Your task to perform on an android device: Do I have any events this weekend? Image 0: 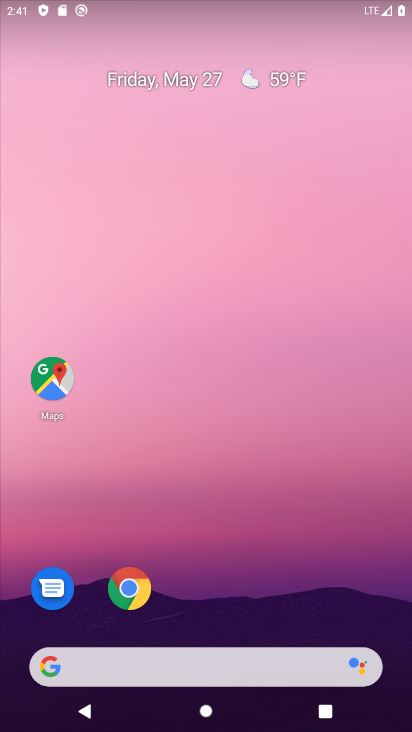
Step 0: drag from (274, 676) to (217, 192)
Your task to perform on an android device: Do I have any events this weekend? Image 1: 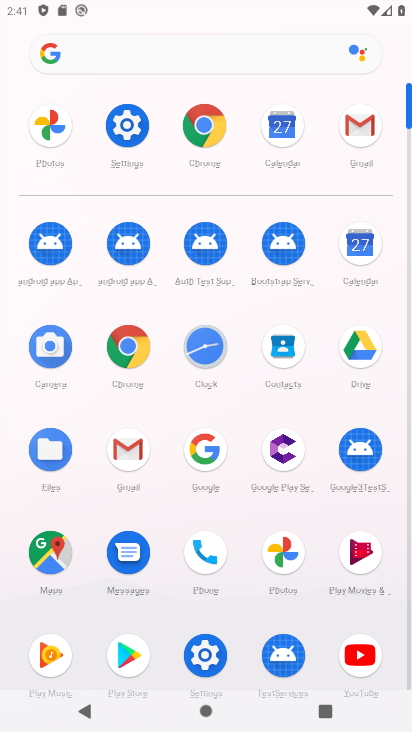
Step 1: click (364, 255)
Your task to perform on an android device: Do I have any events this weekend? Image 2: 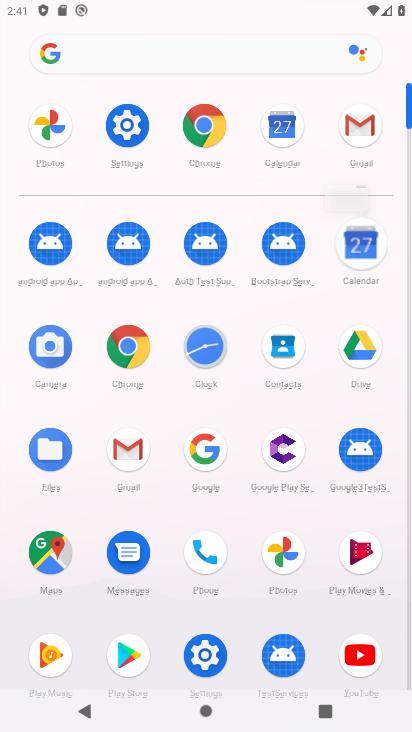
Step 2: click (364, 255)
Your task to perform on an android device: Do I have any events this weekend? Image 3: 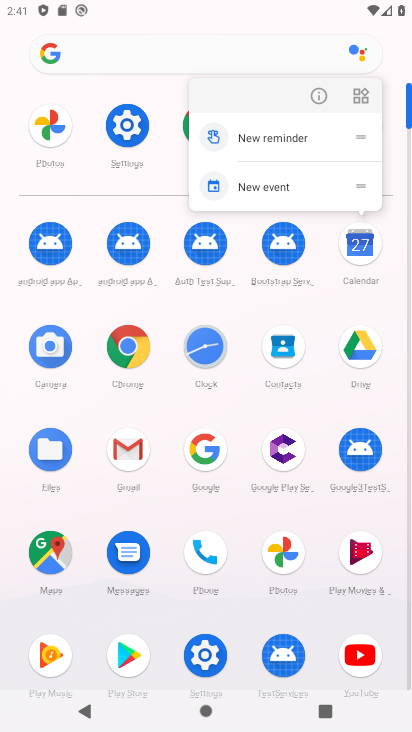
Step 3: click (364, 255)
Your task to perform on an android device: Do I have any events this weekend? Image 4: 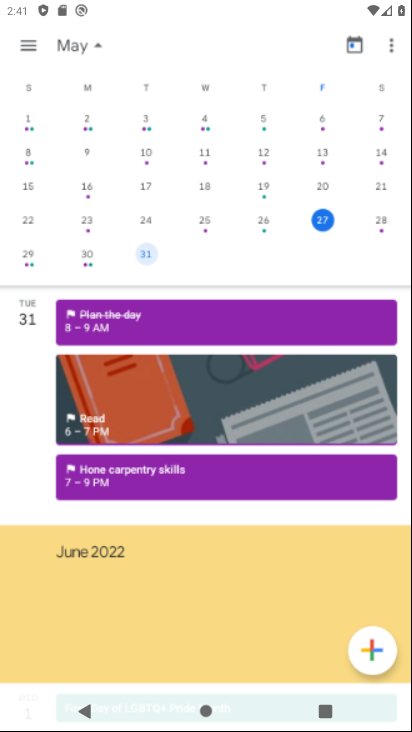
Step 4: click (364, 255)
Your task to perform on an android device: Do I have any events this weekend? Image 5: 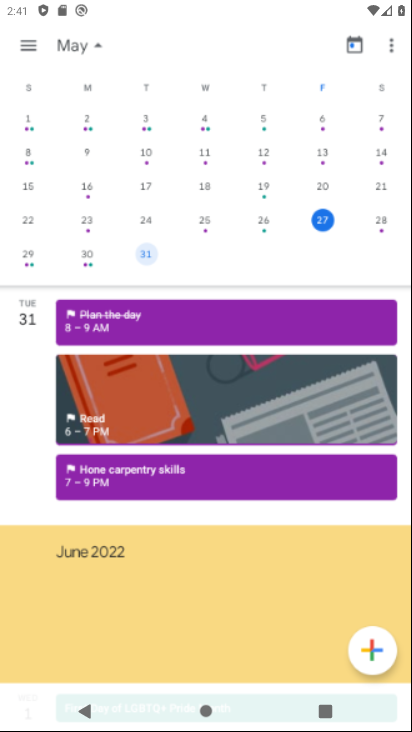
Step 5: click (364, 255)
Your task to perform on an android device: Do I have any events this weekend? Image 6: 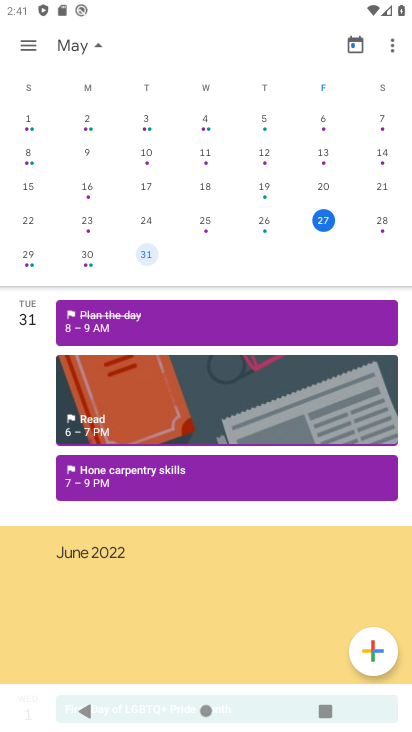
Step 6: click (135, 246)
Your task to perform on an android device: Do I have any events this weekend? Image 7: 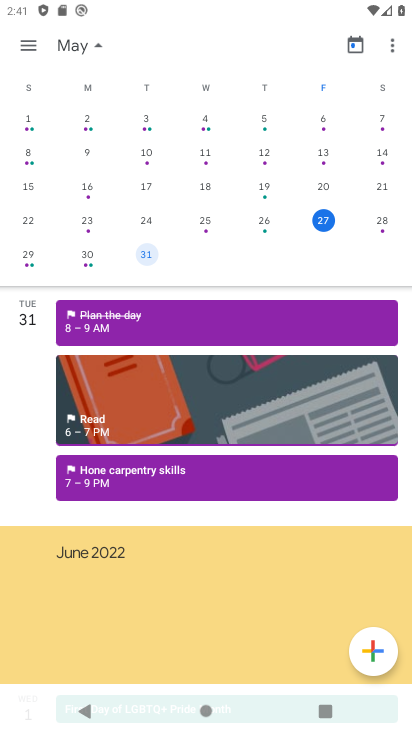
Step 7: click (135, 246)
Your task to perform on an android device: Do I have any events this weekend? Image 8: 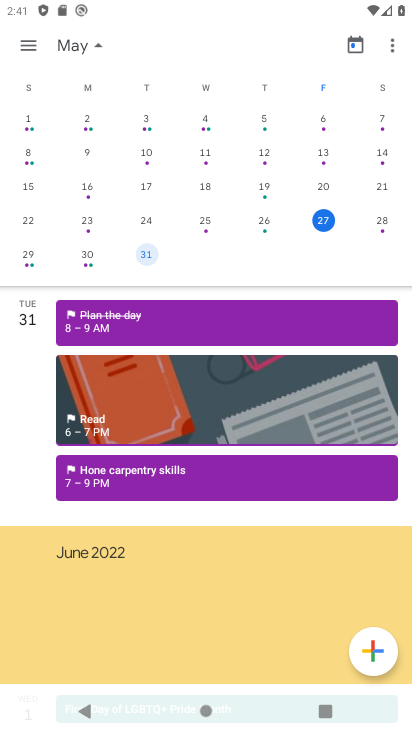
Step 8: click (135, 246)
Your task to perform on an android device: Do I have any events this weekend? Image 9: 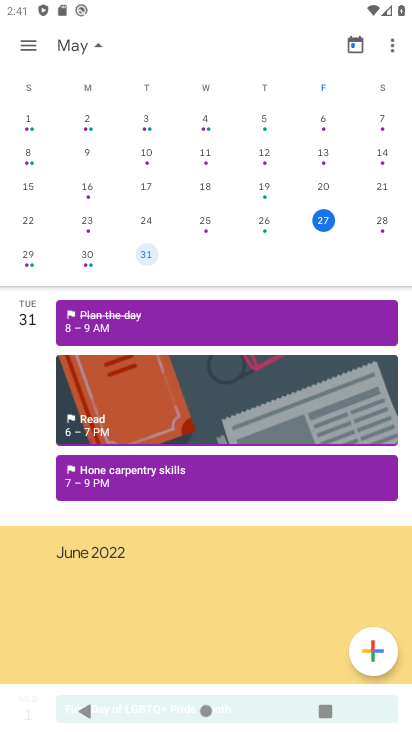
Step 9: click (135, 246)
Your task to perform on an android device: Do I have any events this weekend? Image 10: 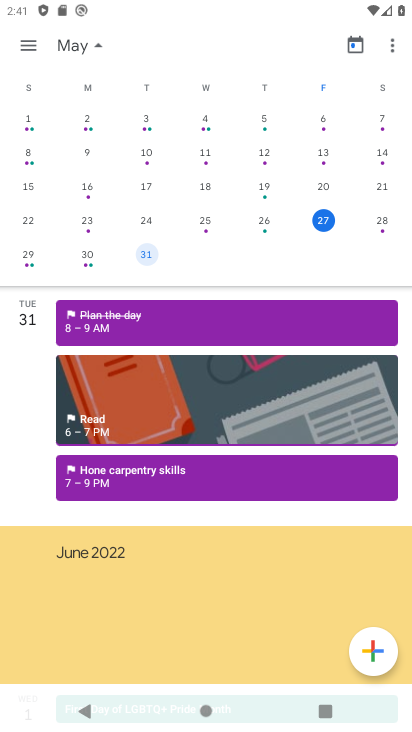
Step 10: task complete